Your task to perform on an android device: Open privacy settings Image 0: 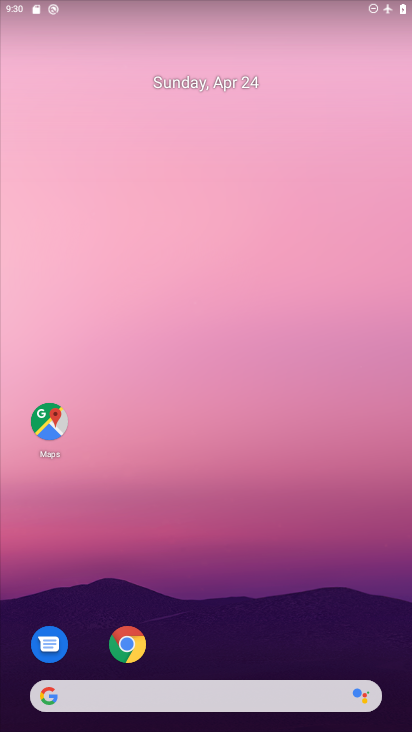
Step 0: drag from (206, 654) to (125, 0)
Your task to perform on an android device: Open privacy settings Image 1: 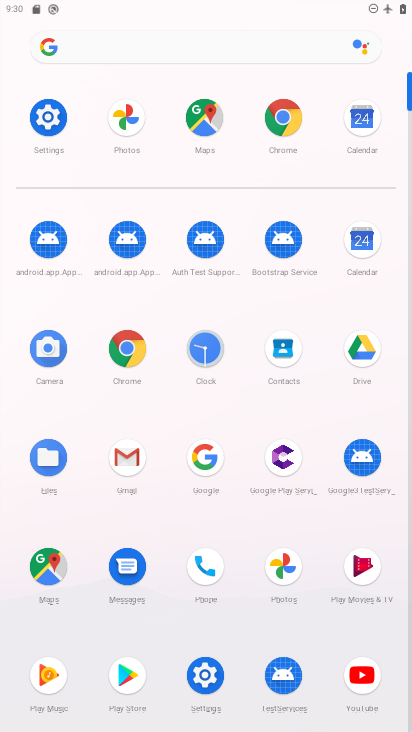
Step 1: click (50, 118)
Your task to perform on an android device: Open privacy settings Image 2: 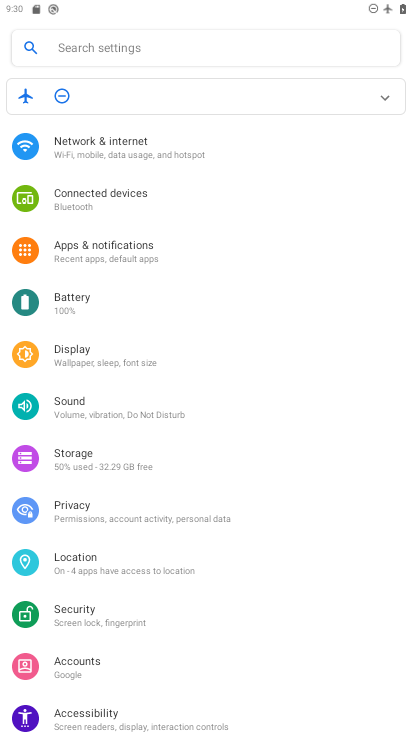
Step 2: click (81, 512)
Your task to perform on an android device: Open privacy settings Image 3: 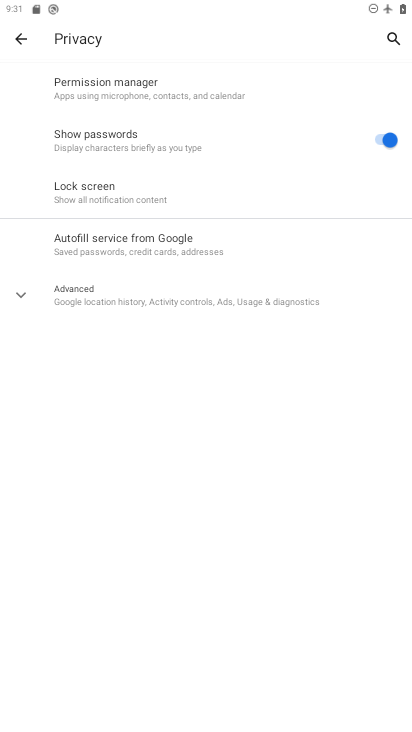
Step 3: task complete